Your task to perform on an android device: Open Android settings Image 0: 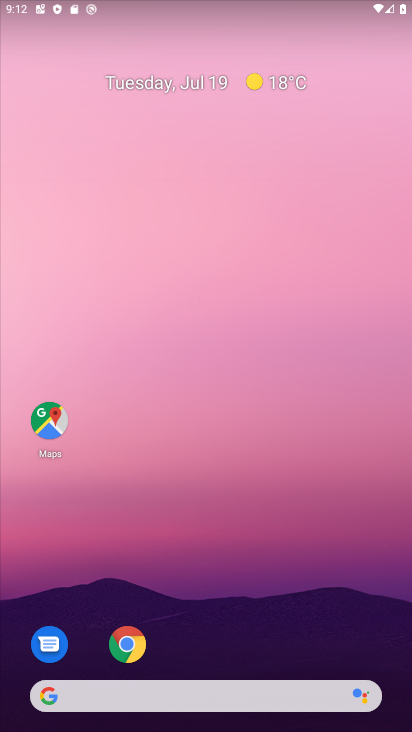
Step 0: drag from (220, 694) to (205, 124)
Your task to perform on an android device: Open Android settings Image 1: 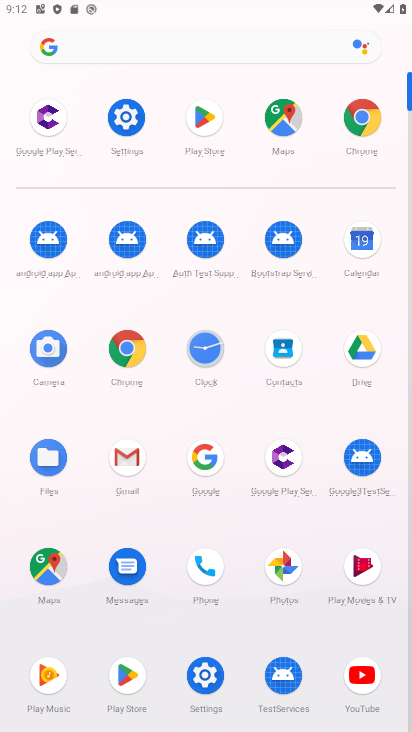
Step 1: click (133, 117)
Your task to perform on an android device: Open Android settings Image 2: 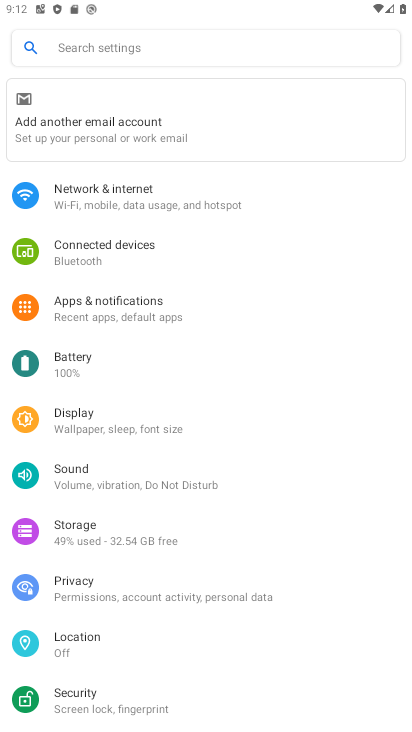
Step 2: task complete